Your task to perform on an android device: Check the weather Image 0: 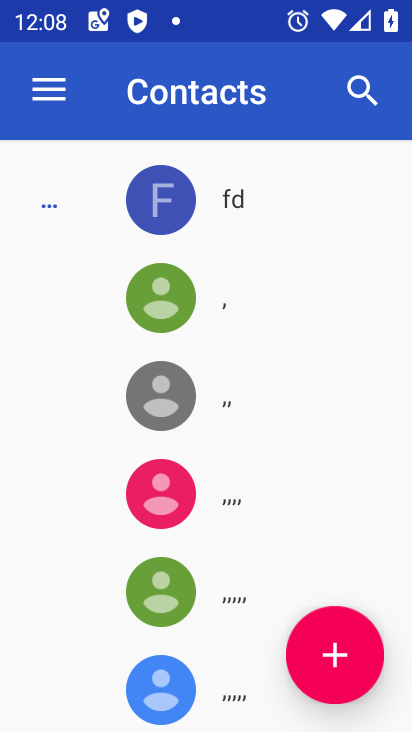
Step 0: press home button
Your task to perform on an android device: Check the weather Image 1: 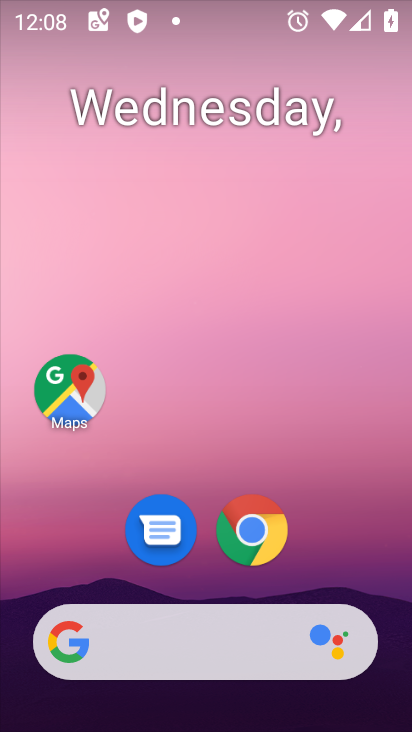
Step 1: click (255, 530)
Your task to perform on an android device: Check the weather Image 2: 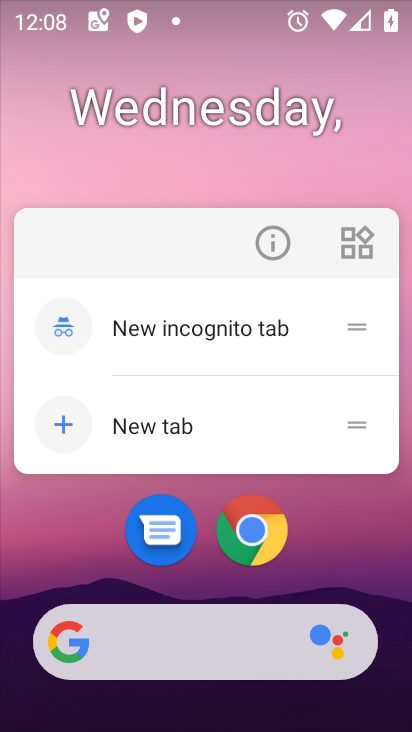
Step 2: click (273, 256)
Your task to perform on an android device: Check the weather Image 3: 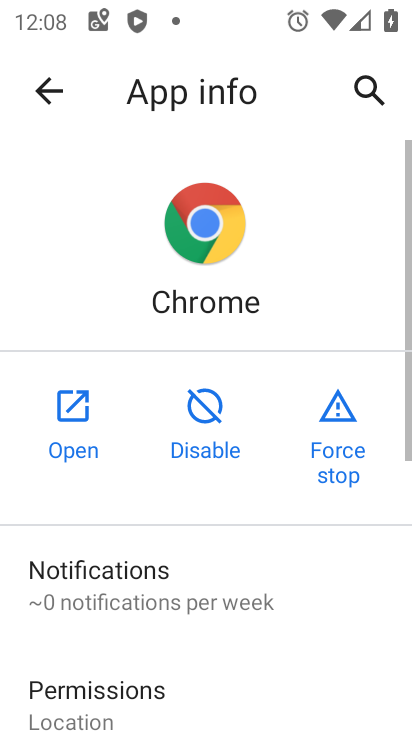
Step 3: click (81, 436)
Your task to perform on an android device: Check the weather Image 4: 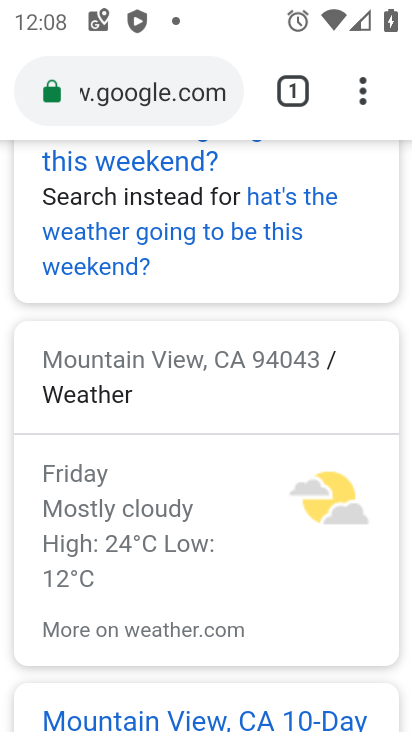
Step 4: click (125, 101)
Your task to perform on an android device: Check the weather Image 5: 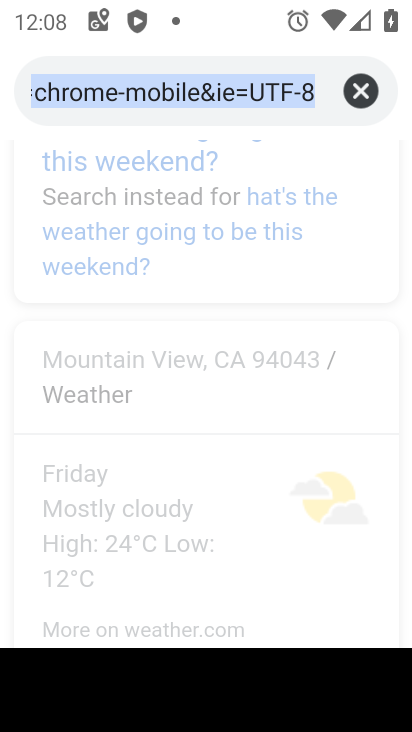
Step 5: type "weather"
Your task to perform on an android device: Check the weather Image 6: 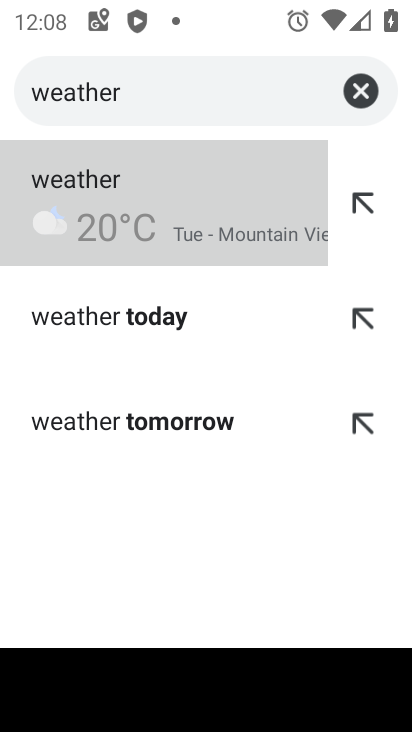
Step 6: click (192, 210)
Your task to perform on an android device: Check the weather Image 7: 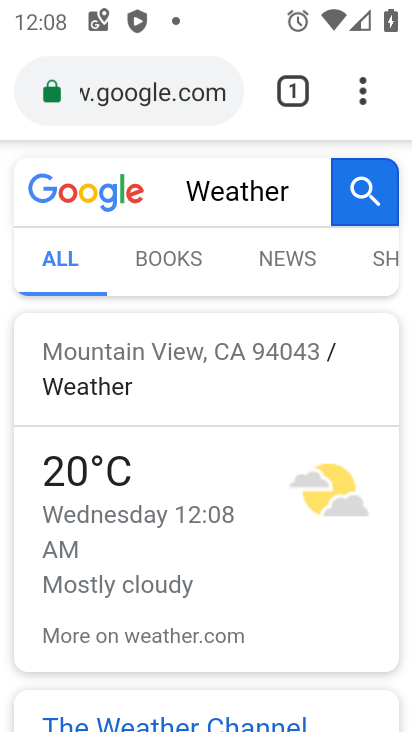
Step 7: task complete